Your task to perform on an android device: turn off picture-in-picture Image 0: 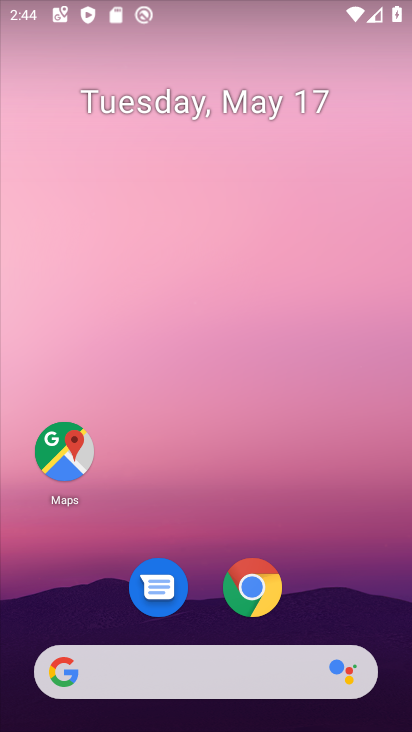
Step 0: drag from (291, 566) to (295, 11)
Your task to perform on an android device: turn off picture-in-picture Image 1: 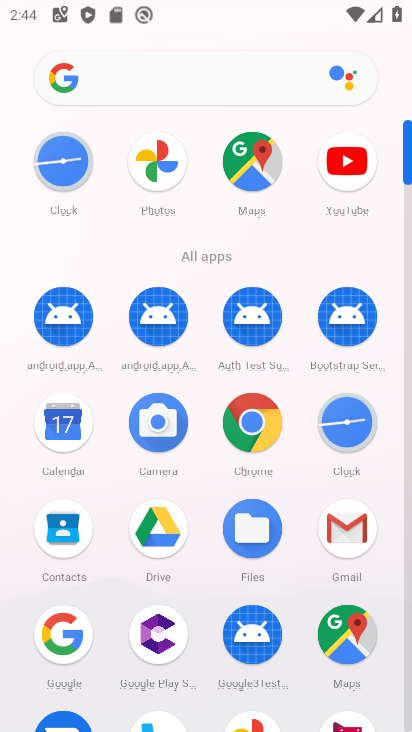
Step 1: drag from (295, 595) to (307, 116)
Your task to perform on an android device: turn off picture-in-picture Image 2: 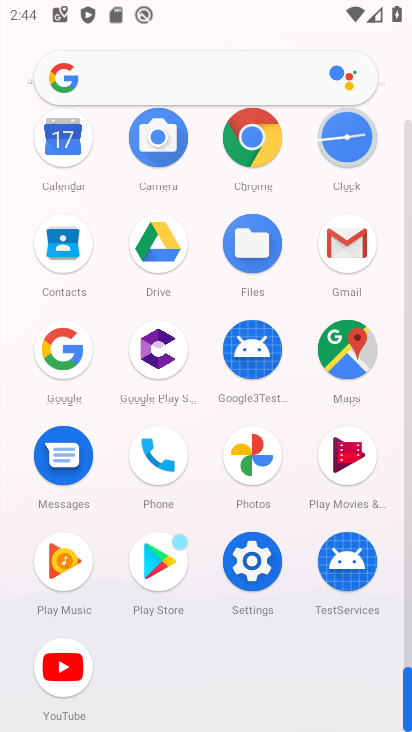
Step 2: click (238, 578)
Your task to perform on an android device: turn off picture-in-picture Image 3: 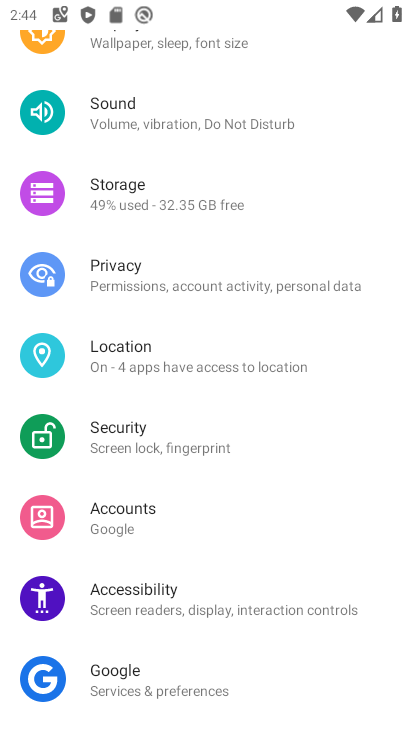
Step 3: drag from (250, 185) to (266, 684)
Your task to perform on an android device: turn off picture-in-picture Image 4: 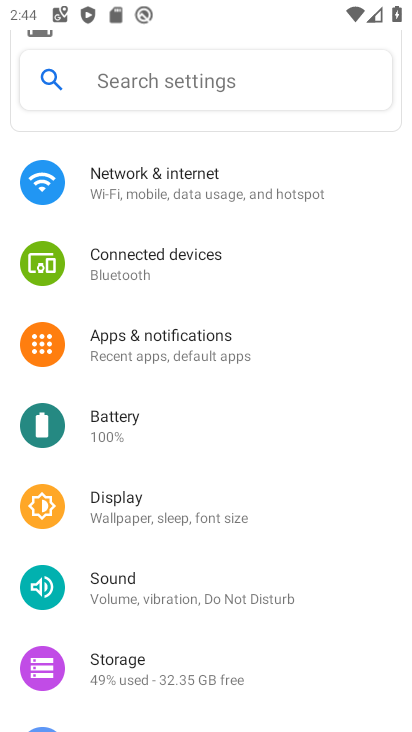
Step 4: click (202, 352)
Your task to perform on an android device: turn off picture-in-picture Image 5: 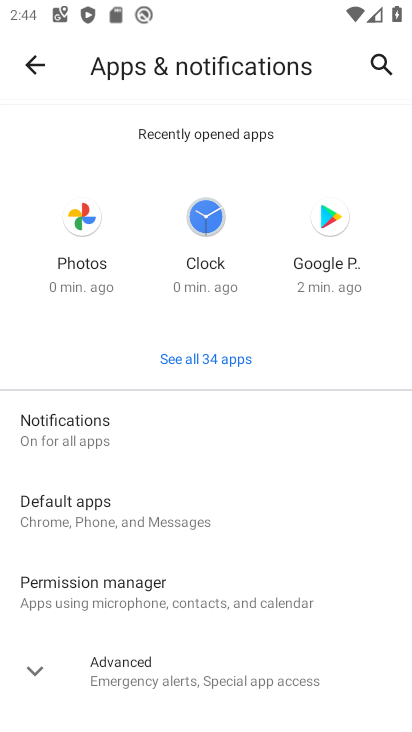
Step 5: drag from (286, 641) to (298, 340)
Your task to perform on an android device: turn off picture-in-picture Image 6: 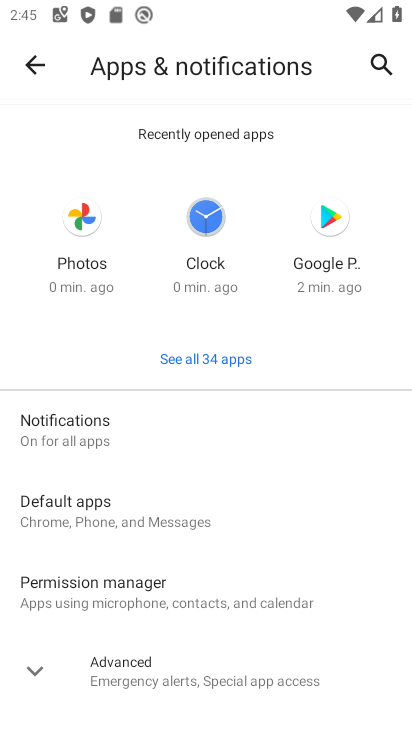
Step 6: click (228, 671)
Your task to perform on an android device: turn off picture-in-picture Image 7: 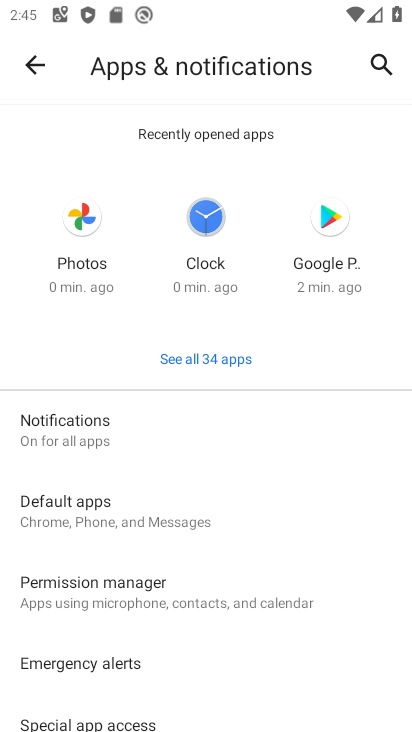
Step 7: drag from (228, 671) to (311, 126)
Your task to perform on an android device: turn off picture-in-picture Image 8: 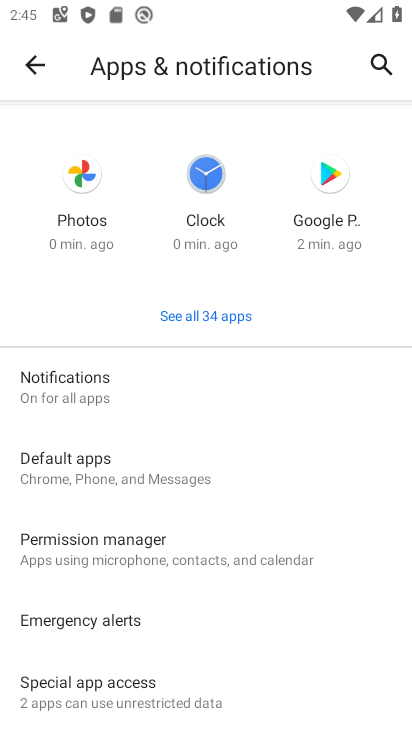
Step 8: click (198, 694)
Your task to perform on an android device: turn off picture-in-picture Image 9: 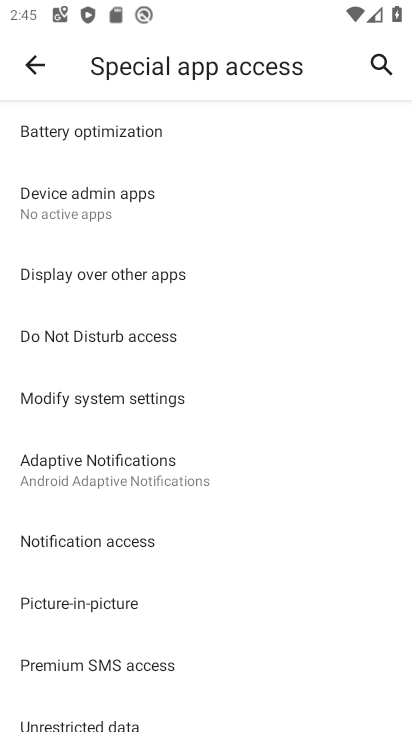
Step 9: click (134, 607)
Your task to perform on an android device: turn off picture-in-picture Image 10: 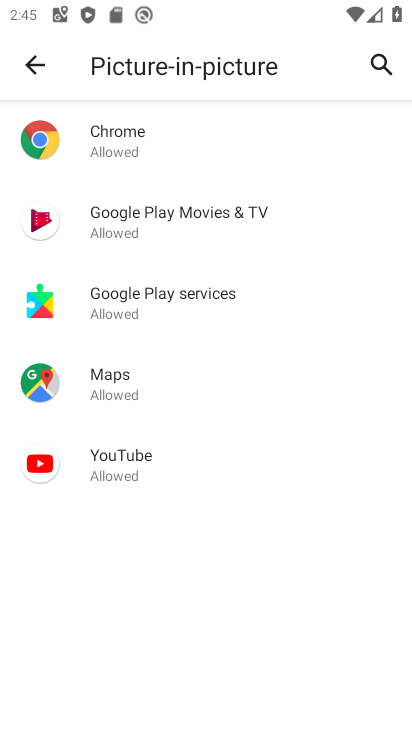
Step 10: click (149, 151)
Your task to perform on an android device: turn off picture-in-picture Image 11: 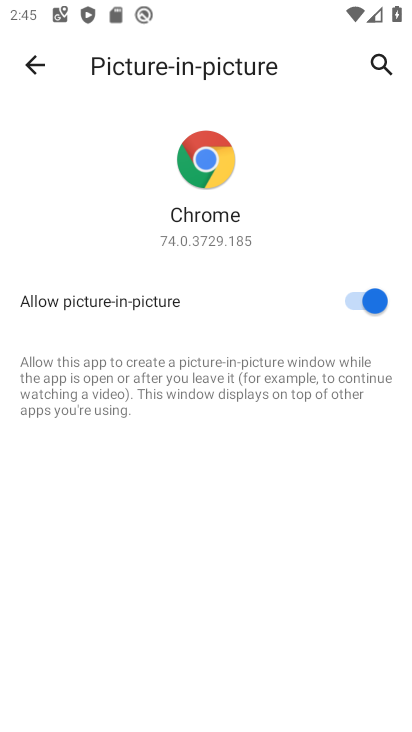
Step 11: click (349, 297)
Your task to perform on an android device: turn off picture-in-picture Image 12: 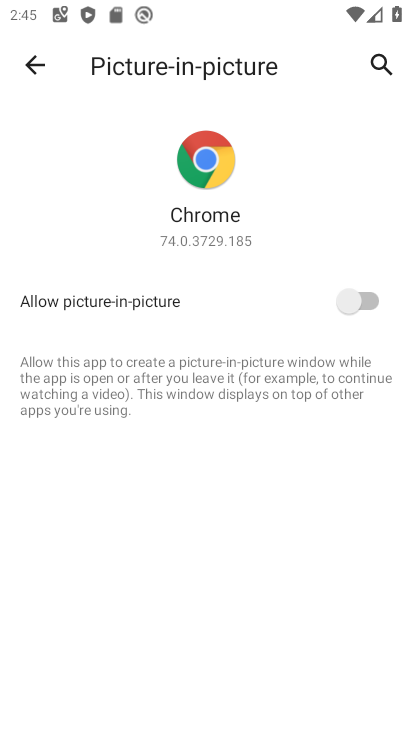
Step 12: press back button
Your task to perform on an android device: turn off picture-in-picture Image 13: 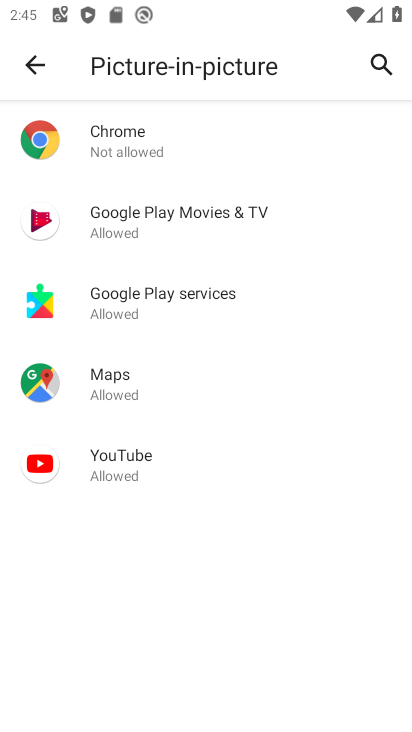
Step 13: click (211, 217)
Your task to perform on an android device: turn off picture-in-picture Image 14: 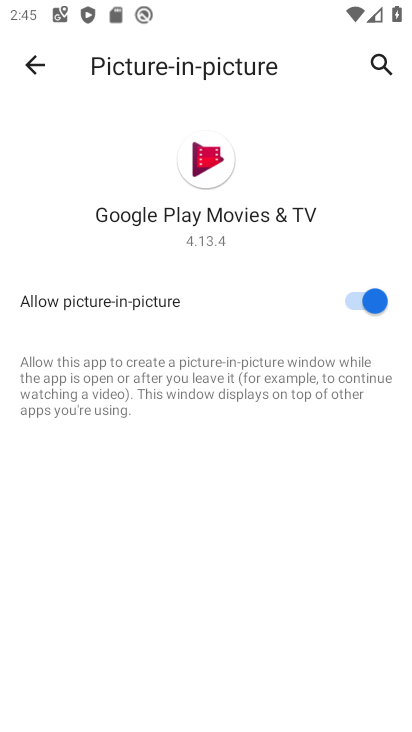
Step 14: click (352, 305)
Your task to perform on an android device: turn off picture-in-picture Image 15: 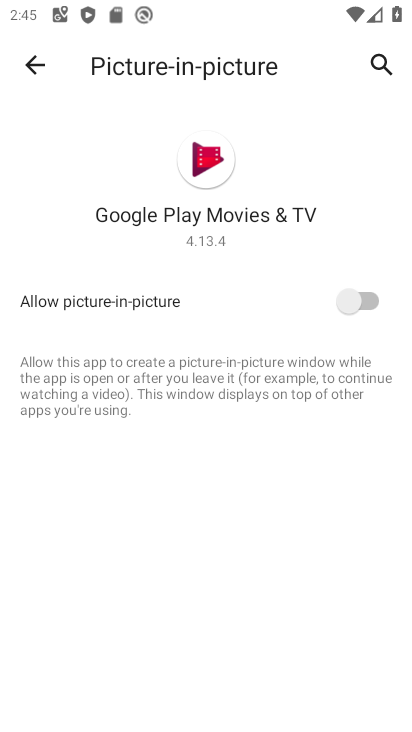
Step 15: press back button
Your task to perform on an android device: turn off picture-in-picture Image 16: 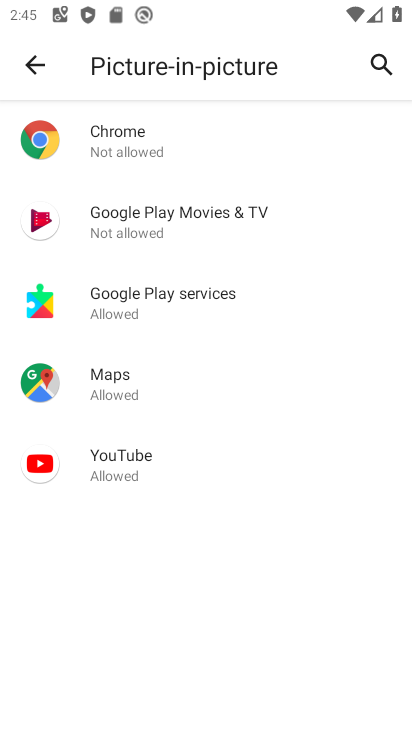
Step 16: click (196, 300)
Your task to perform on an android device: turn off picture-in-picture Image 17: 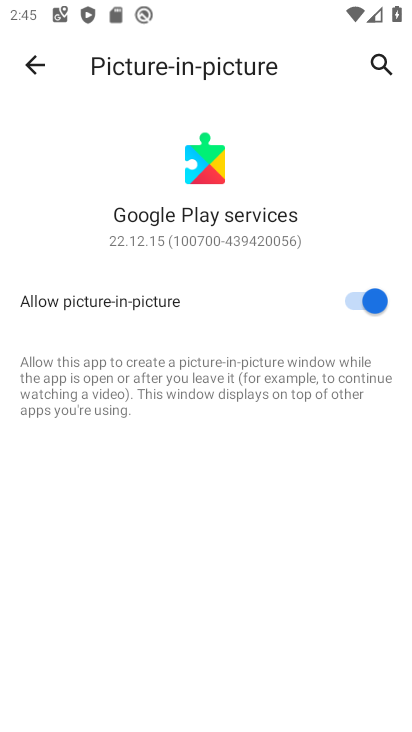
Step 17: click (354, 297)
Your task to perform on an android device: turn off picture-in-picture Image 18: 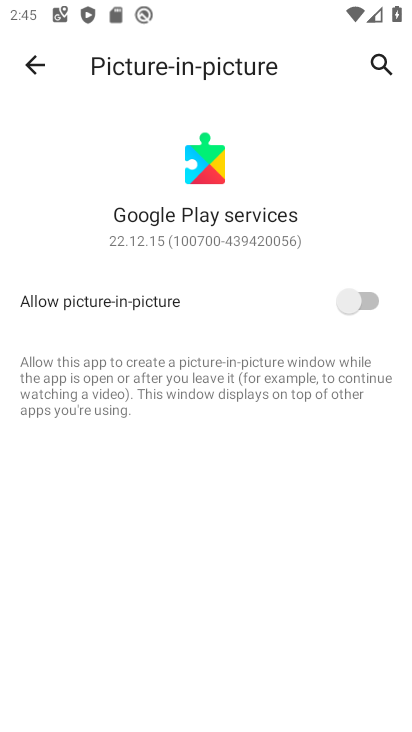
Step 18: press back button
Your task to perform on an android device: turn off picture-in-picture Image 19: 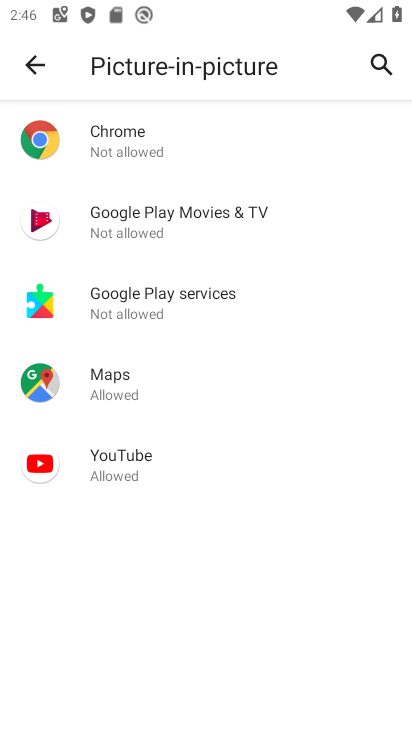
Step 19: click (137, 381)
Your task to perform on an android device: turn off picture-in-picture Image 20: 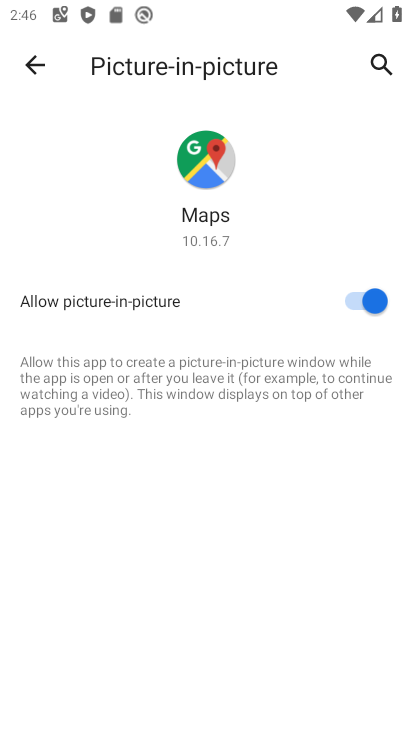
Step 20: click (350, 298)
Your task to perform on an android device: turn off picture-in-picture Image 21: 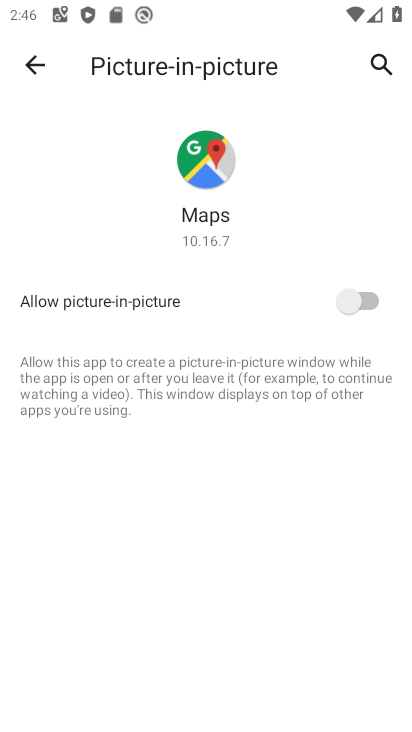
Step 21: press back button
Your task to perform on an android device: turn off picture-in-picture Image 22: 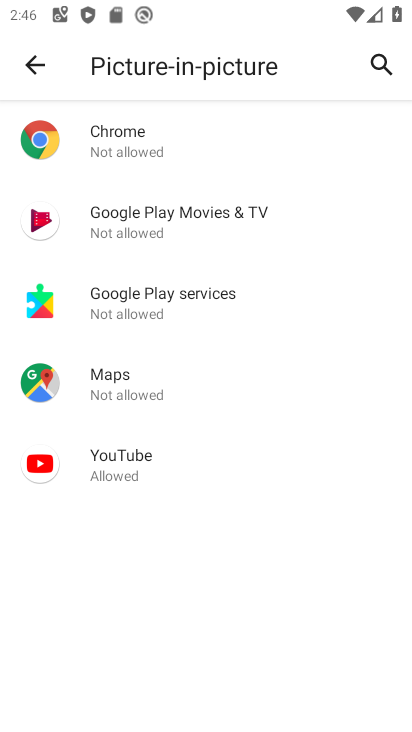
Step 22: click (191, 474)
Your task to perform on an android device: turn off picture-in-picture Image 23: 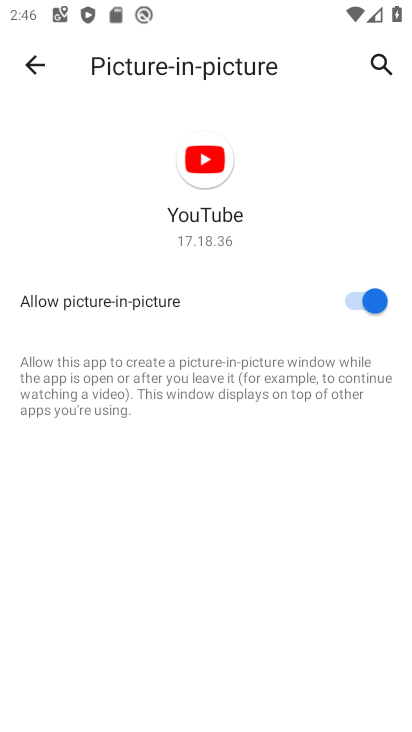
Step 23: click (356, 298)
Your task to perform on an android device: turn off picture-in-picture Image 24: 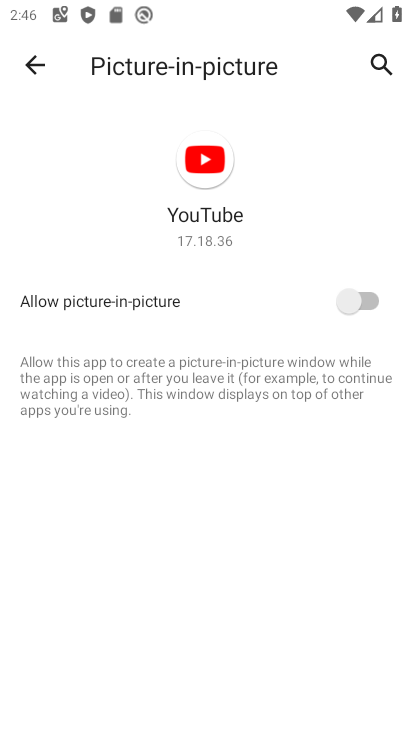
Step 24: task complete